Your task to perform on an android device: check android version Image 0: 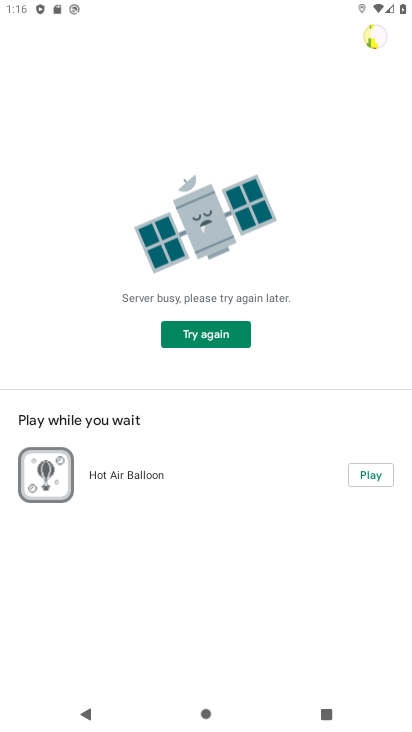
Step 0: press home button
Your task to perform on an android device: check android version Image 1: 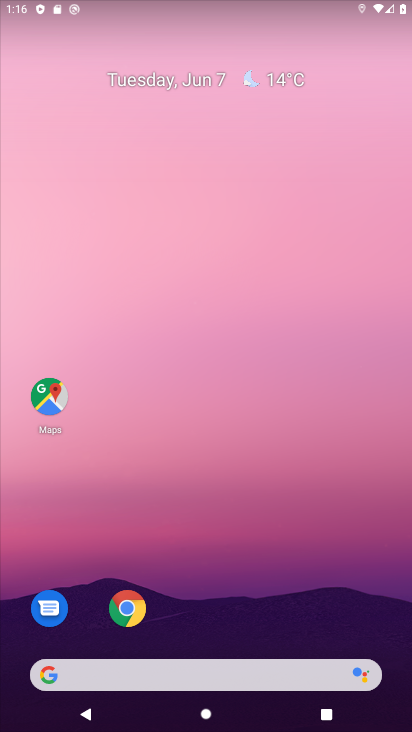
Step 1: drag from (388, 585) to (353, 94)
Your task to perform on an android device: check android version Image 2: 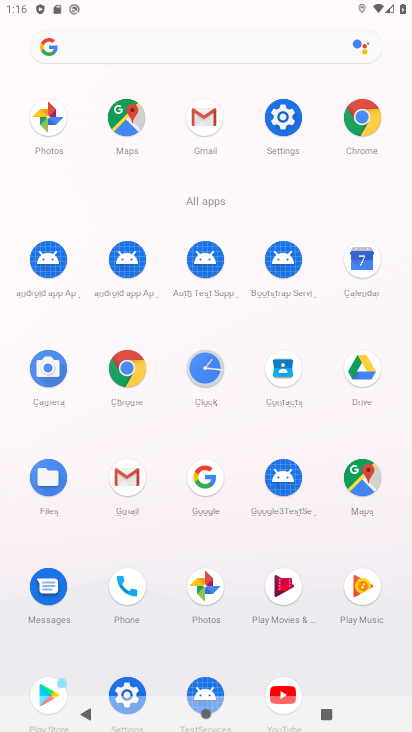
Step 2: click (129, 691)
Your task to perform on an android device: check android version Image 3: 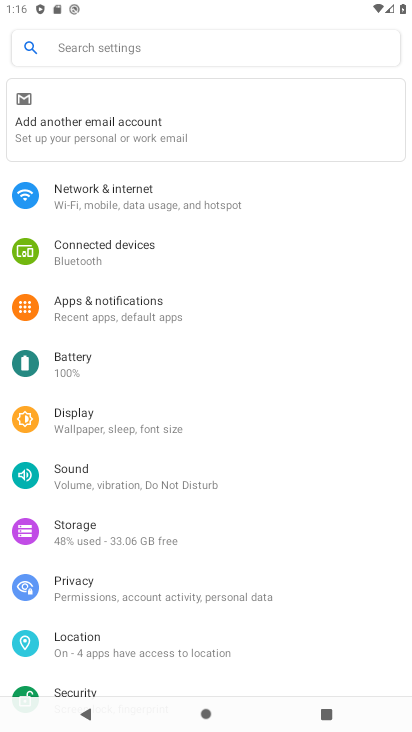
Step 3: drag from (184, 634) to (214, 296)
Your task to perform on an android device: check android version Image 4: 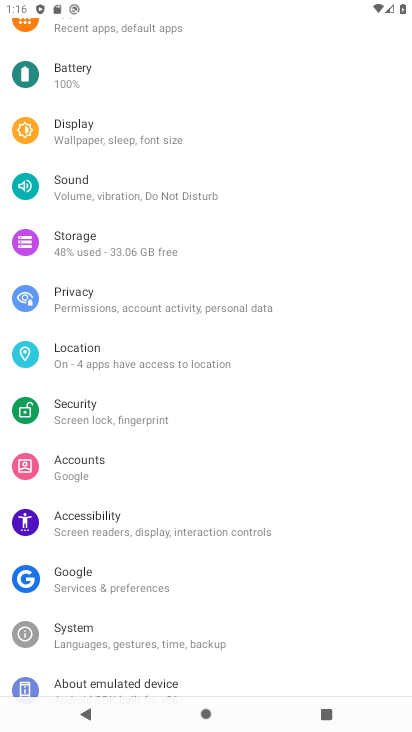
Step 4: drag from (175, 635) to (237, 341)
Your task to perform on an android device: check android version Image 5: 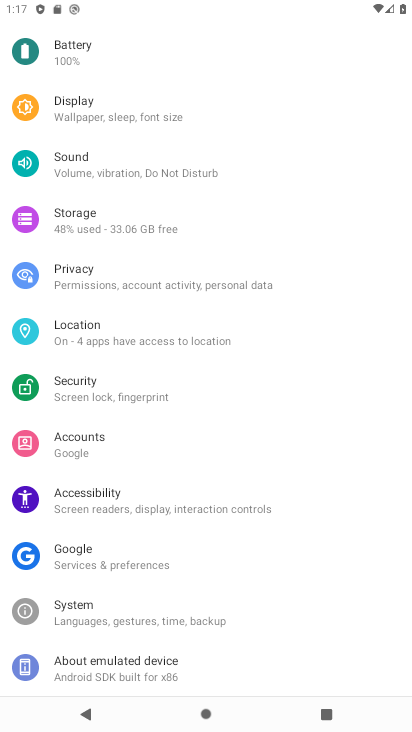
Step 5: click (178, 663)
Your task to perform on an android device: check android version Image 6: 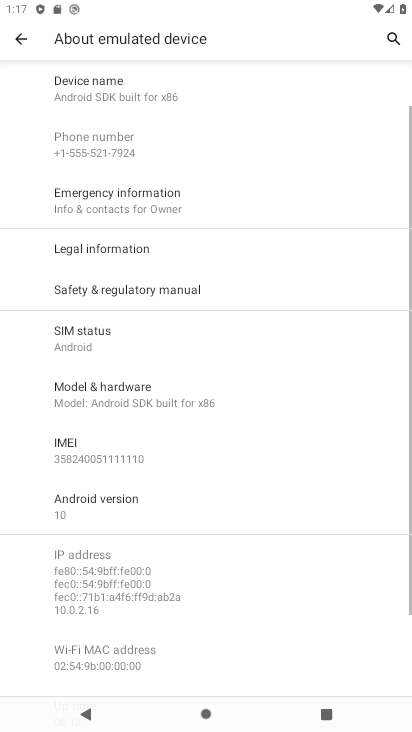
Step 6: click (168, 529)
Your task to perform on an android device: check android version Image 7: 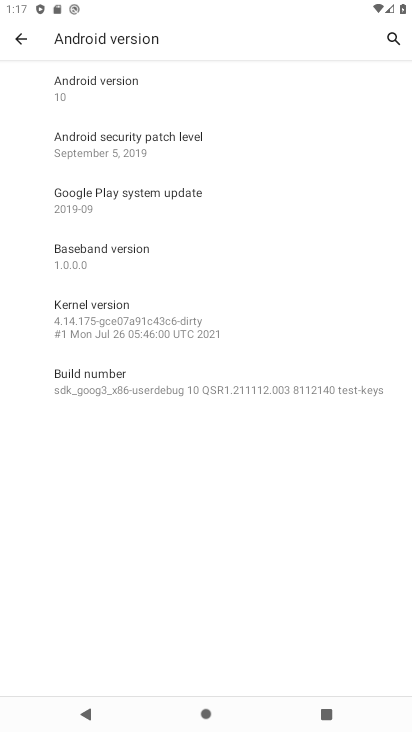
Step 7: task complete